Your task to perform on an android device: toggle improve location accuracy Image 0: 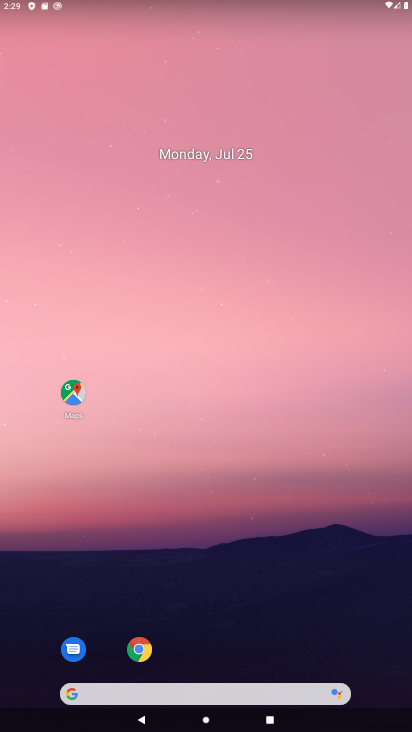
Step 0: drag from (187, 712) to (163, 168)
Your task to perform on an android device: toggle improve location accuracy Image 1: 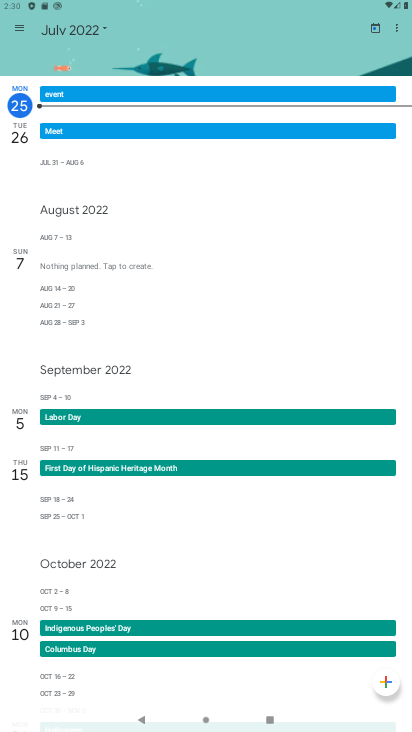
Step 1: press home button
Your task to perform on an android device: toggle improve location accuracy Image 2: 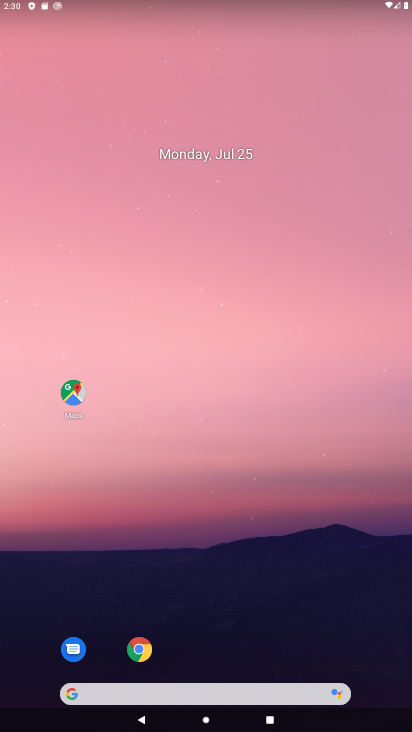
Step 2: click (72, 388)
Your task to perform on an android device: toggle improve location accuracy Image 3: 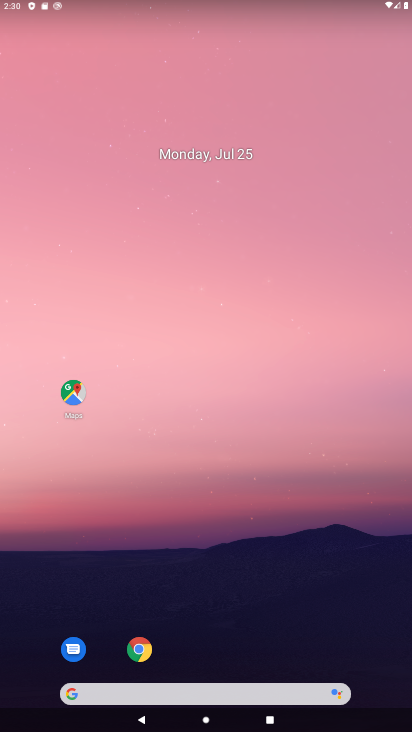
Step 3: click (72, 388)
Your task to perform on an android device: toggle improve location accuracy Image 4: 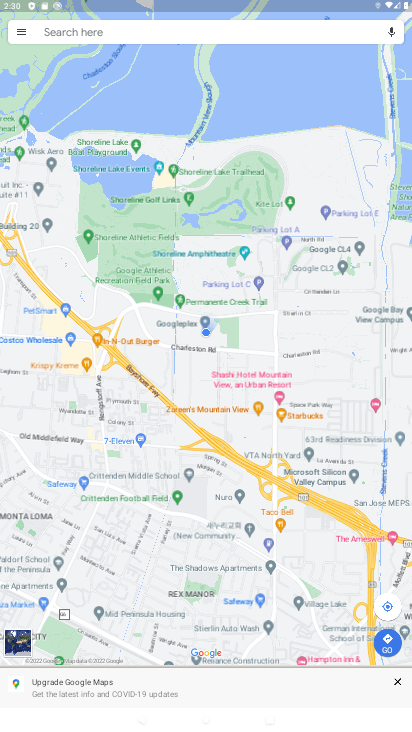
Step 4: click (22, 40)
Your task to perform on an android device: toggle improve location accuracy Image 5: 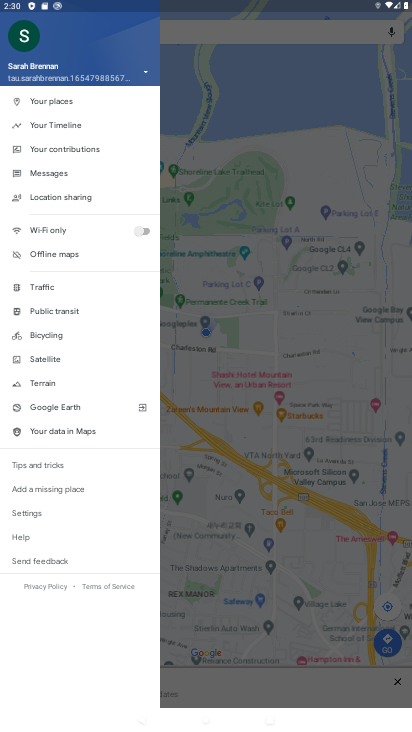
Step 5: click (51, 523)
Your task to perform on an android device: toggle improve location accuracy Image 6: 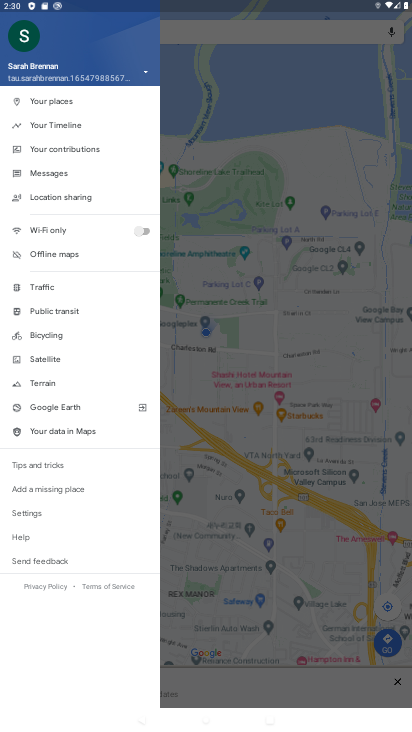
Step 6: click (51, 523)
Your task to perform on an android device: toggle improve location accuracy Image 7: 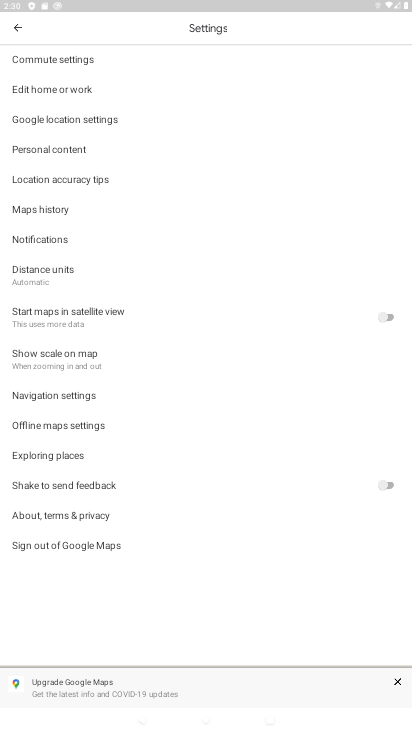
Step 7: click (109, 117)
Your task to perform on an android device: toggle improve location accuracy Image 8: 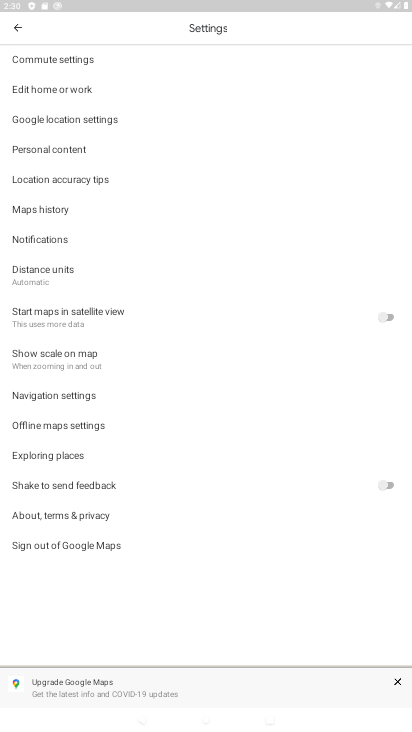
Step 8: click (109, 117)
Your task to perform on an android device: toggle improve location accuracy Image 9: 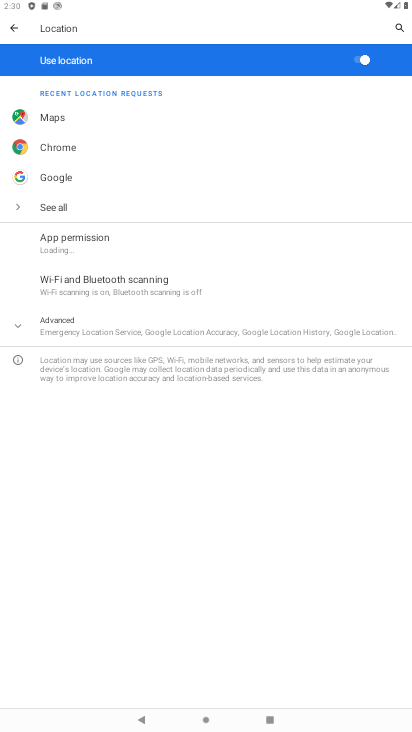
Step 9: click (150, 282)
Your task to perform on an android device: toggle improve location accuracy Image 10: 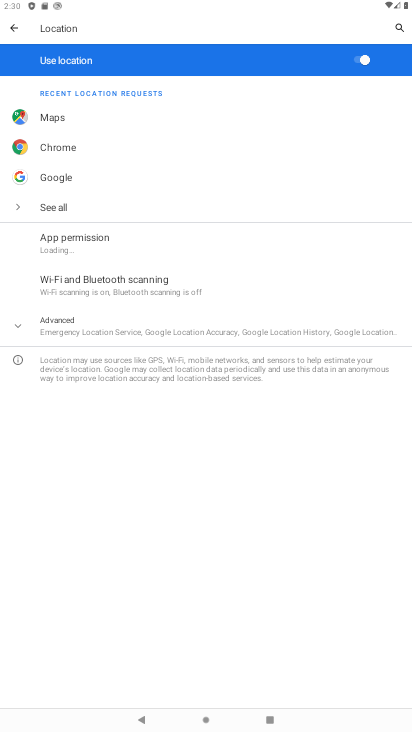
Step 10: click (150, 282)
Your task to perform on an android device: toggle improve location accuracy Image 11: 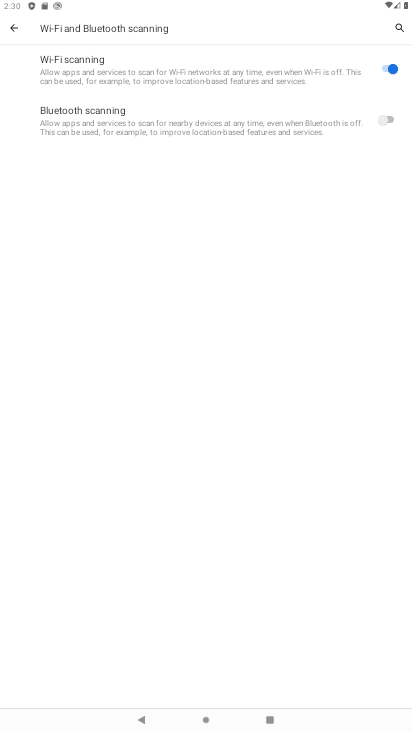
Step 11: click (10, 32)
Your task to perform on an android device: toggle improve location accuracy Image 12: 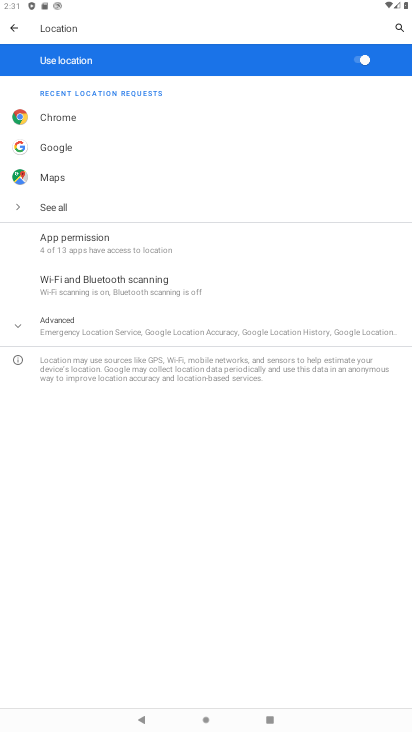
Step 12: click (96, 325)
Your task to perform on an android device: toggle improve location accuracy Image 13: 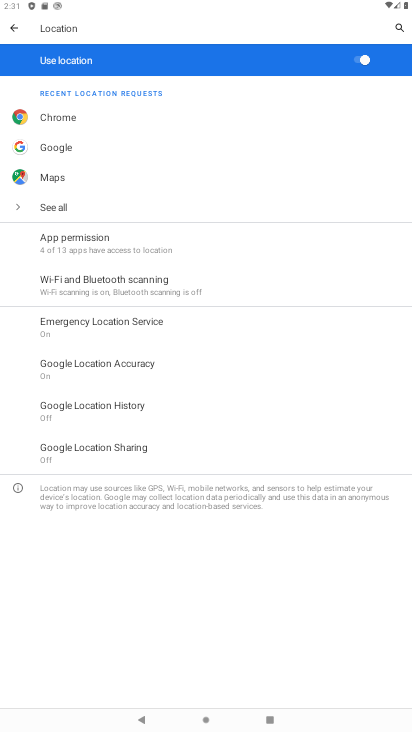
Step 13: click (122, 367)
Your task to perform on an android device: toggle improve location accuracy Image 14: 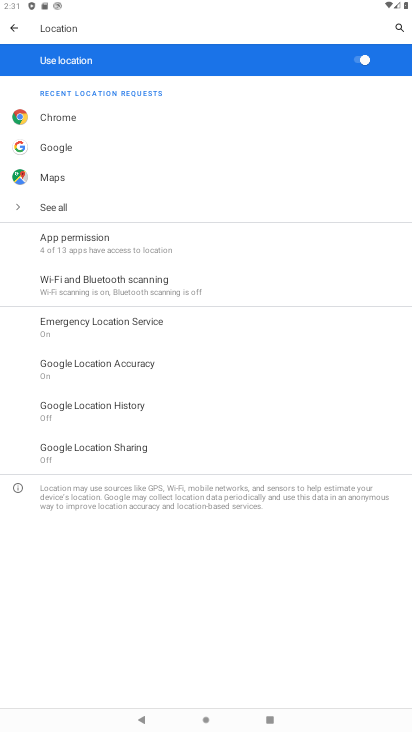
Step 14: click (122, 367)
Your task to perform on an android device: toggle improve location accuracy Image 15: 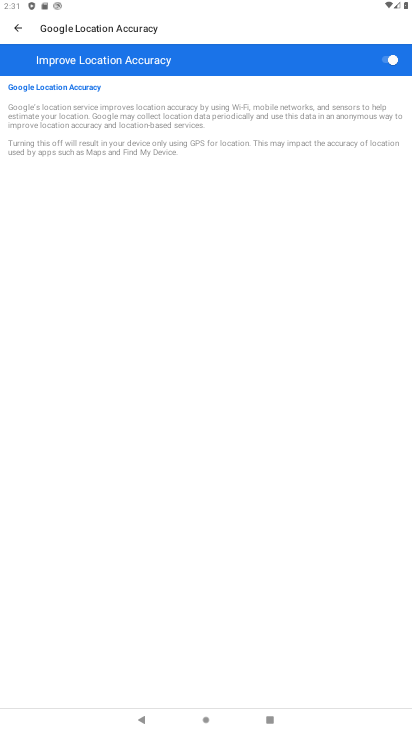
Step 15: click (398, 62)
Your task to perform on an android device: toggle improve location accuracy Image 16: 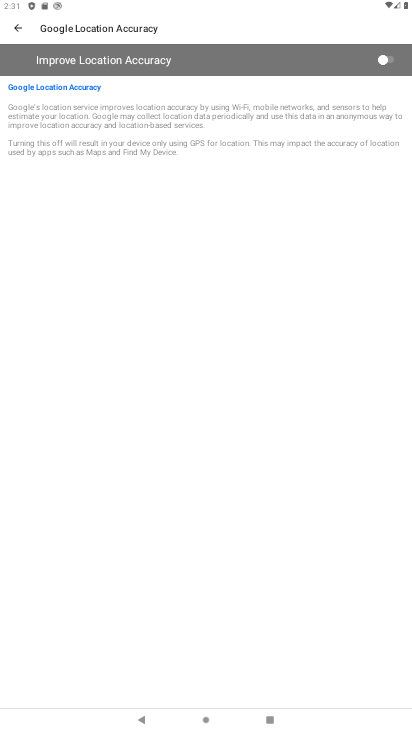
Step 16: task complete